Your task to perform on an android device: Go to location settings Image 0: 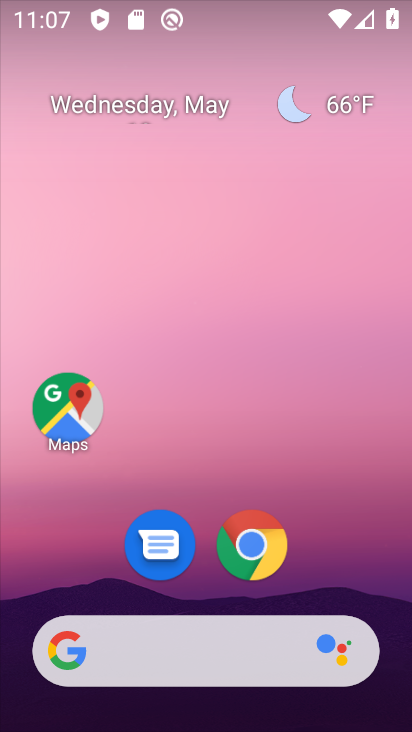
Step 0: drag from (281, 716) to (242, 116)
Your task to perform on an android device: Go to location settings Image 1: 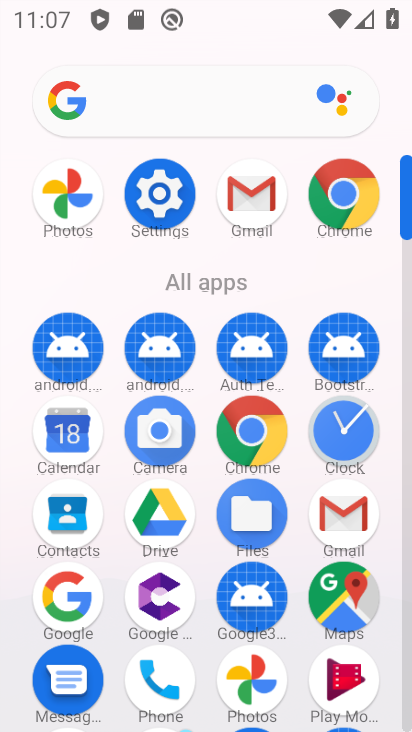
Step 1: click (152, 172)
Your task to perform on an android device: Go to location settings Image 2: 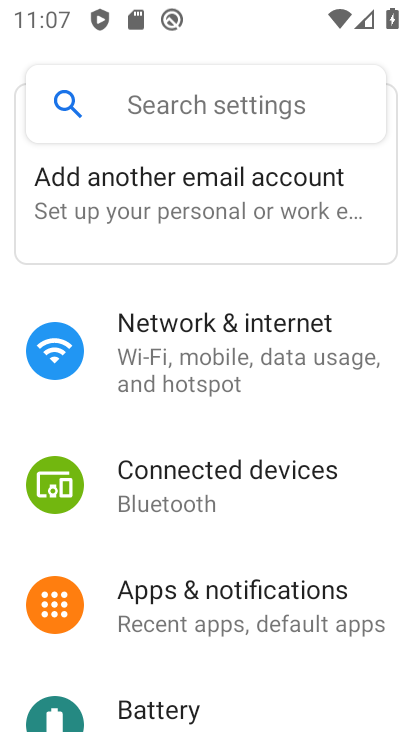
Step 2: drag from (257, 653) to (259, 222)
Your task to perform on an android device: Go to location settings Image 3: 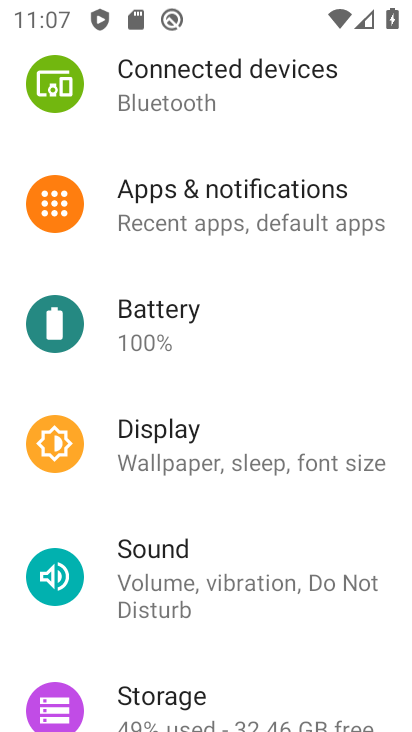
Step 3: drag from (252, 555) to (263, 229)
Your task to perform on an android device: Go to location settings Image 4: 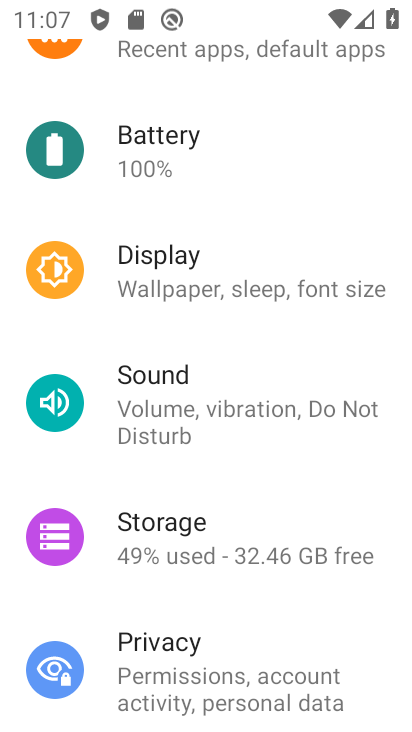
Step 4: drag from (204, 627) to (182, 210)
Your task to perform on an android device: Go to location settings Image 5: 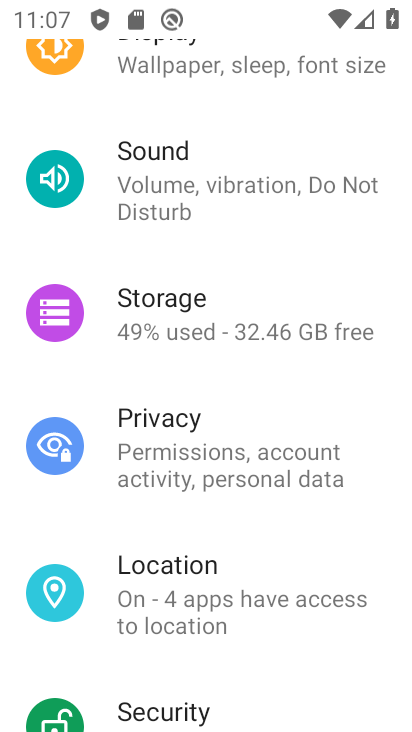
Step 5: click (185, 589)
Your task to perform on an android device: Go to location settings Image 6: 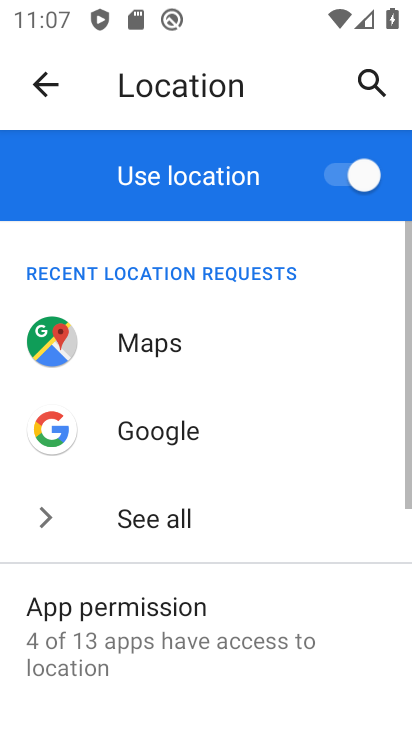
Step 6: task complete